Your task to perform on an android device: Go to Reddit.com Image 0: 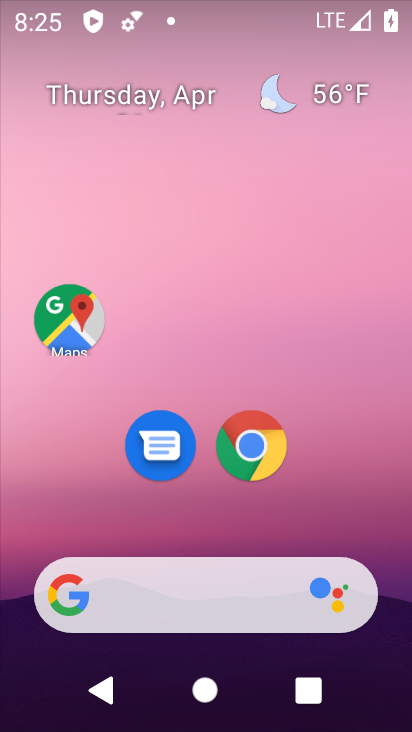
Step 0: click (241, 459)
Your task to perform on an android device: Go to Reddit.com Image 1: 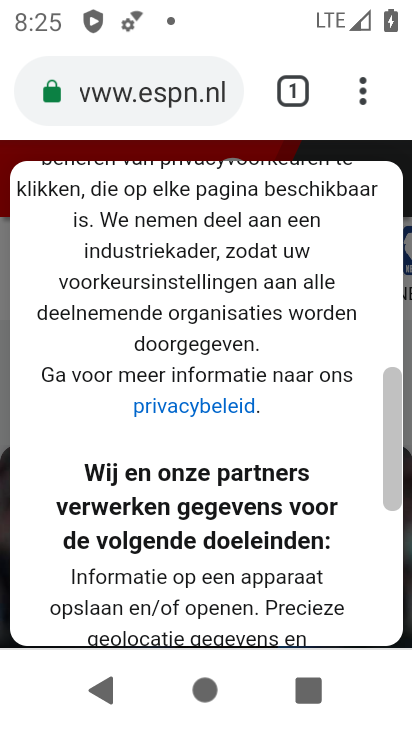
Step 1: click (190, 91)
Your task to perform on an android device: Go to Reddit.com Image 2: 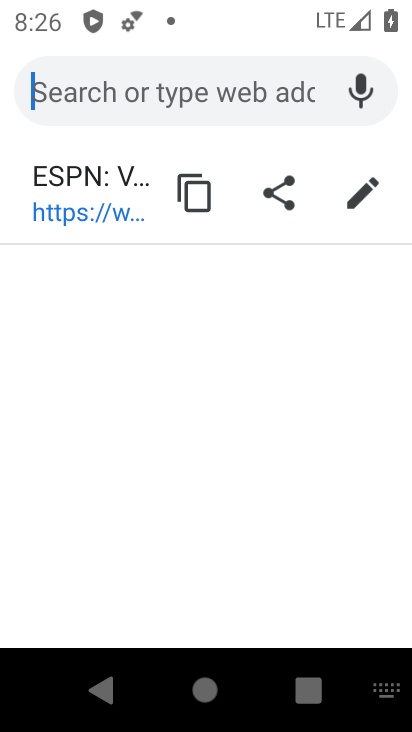
Step 2: type "reddit.com"
Your task to perform on an android device: Go to Reddit.com Image 3: 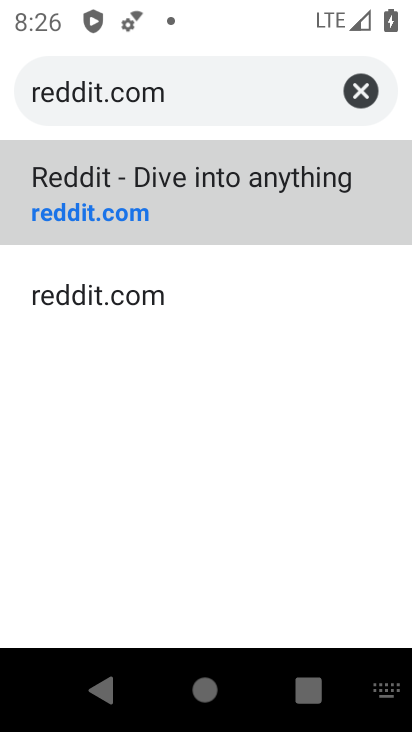
Step 3: click (81, 295)
Your task to perform on an android device: Go to Reddit.com Image 4: 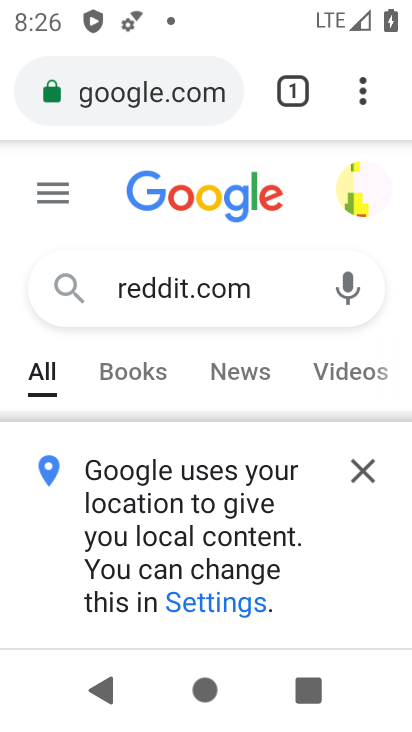
Step 4: click (363, 466)
Your task to perform on an android device: Go to Reddit.com Image 5: 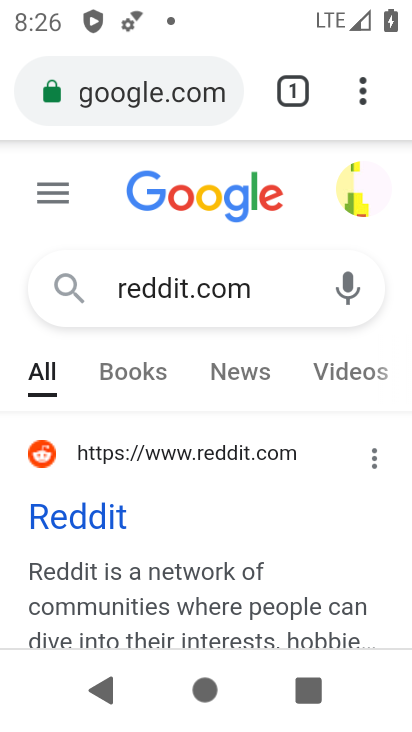
Step 5: click (49, 518)
Your task to perform on an android device: Go to Reddit.com Image 6: 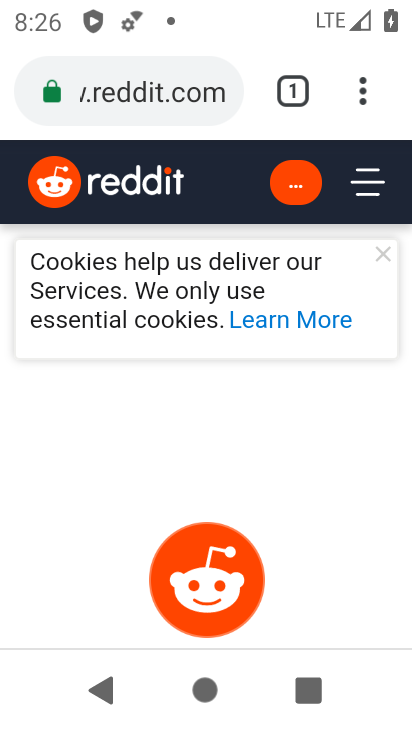
Step 6: task complete